Your task to perform on an android device: Open Chrome and go to the settings page Image 0: 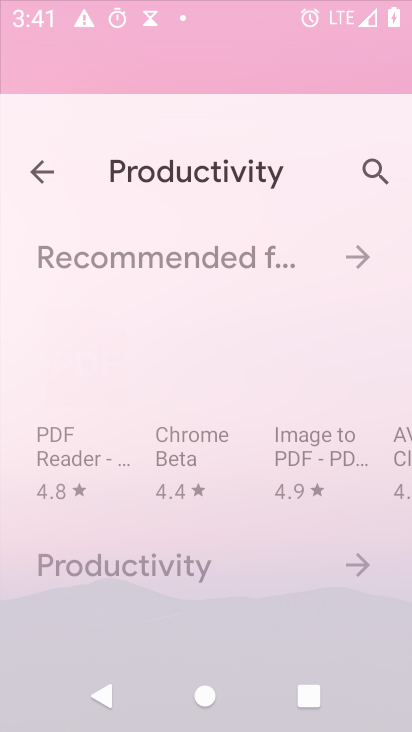
Step 0: press home button
Your task to perform on an android device: Open Chrome and go to the settings page Image 1: 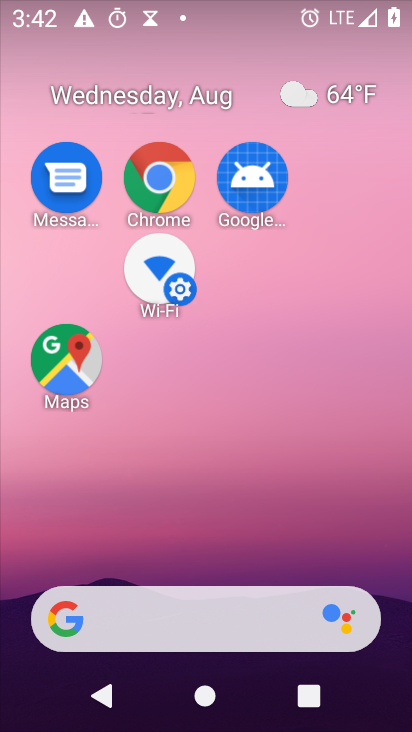
Step 1: click (166, 170)
Your task to perform on an android device: Open Chrome and go to the settings page Image 2: 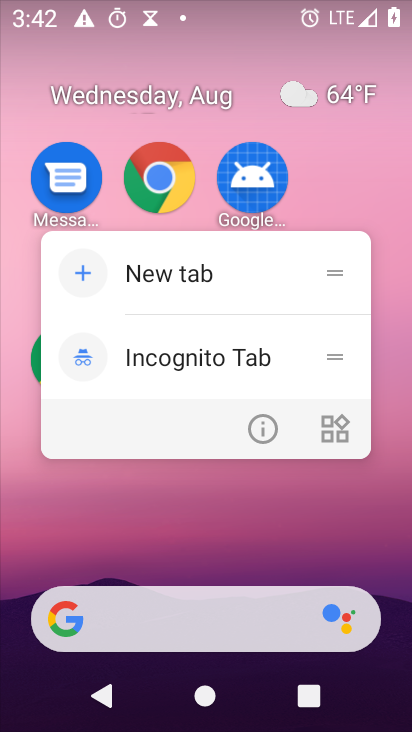
Step 2: click (166, 170)
Your task to perform on an android device: Open Chrome and go to the settings page Image 3: 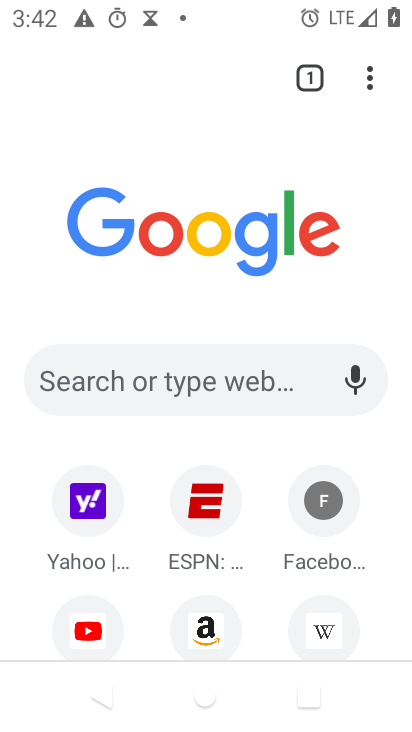
Step 3: task complete